Your task to perform on an android device: Search for pizza restaurants on Maps Image 0: 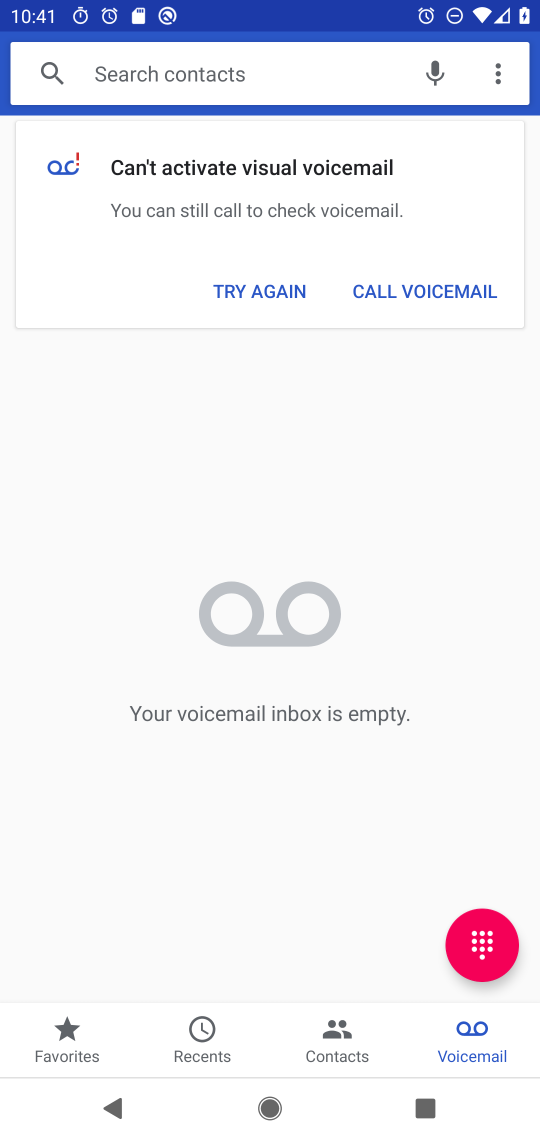
Step 0: press home button
Your task to perform on an android device: Search for pizza restaurants on Maps Image 1: 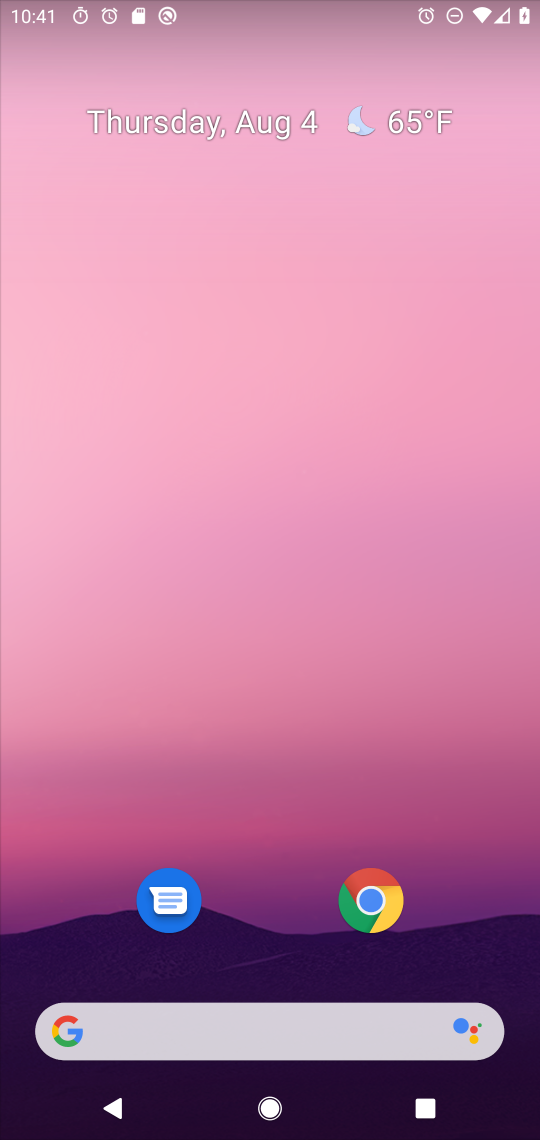
Step 1: drag from (244, 1026) to (234, 168)
Your task to perform on an android device: Search for pizza restaurants on Maps Image 2: 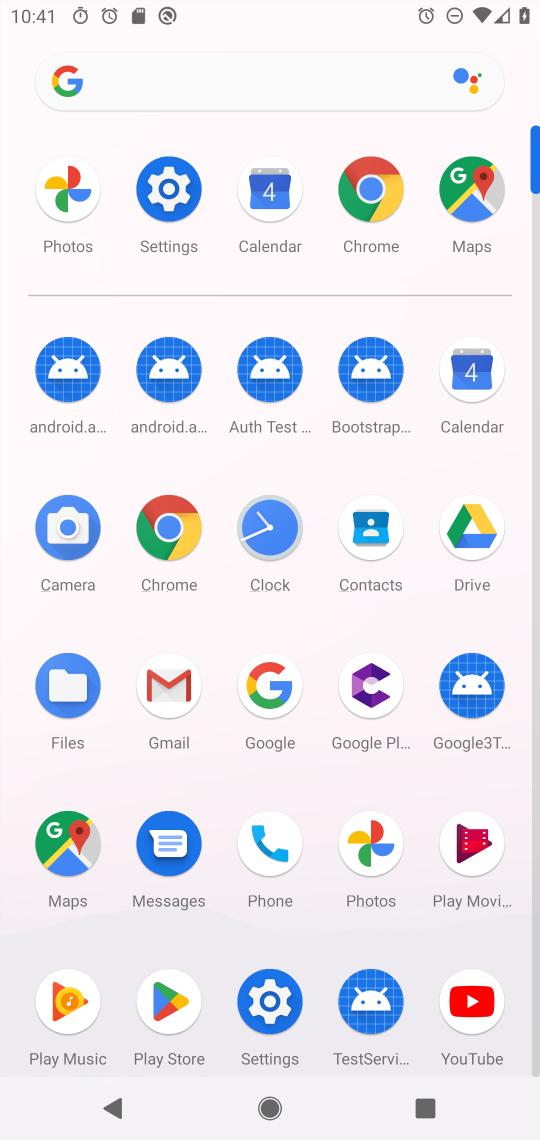
Step 2: click (471, 199)
Your task to perform on an android device: Search for pizza restaurants on Maps Image 3: 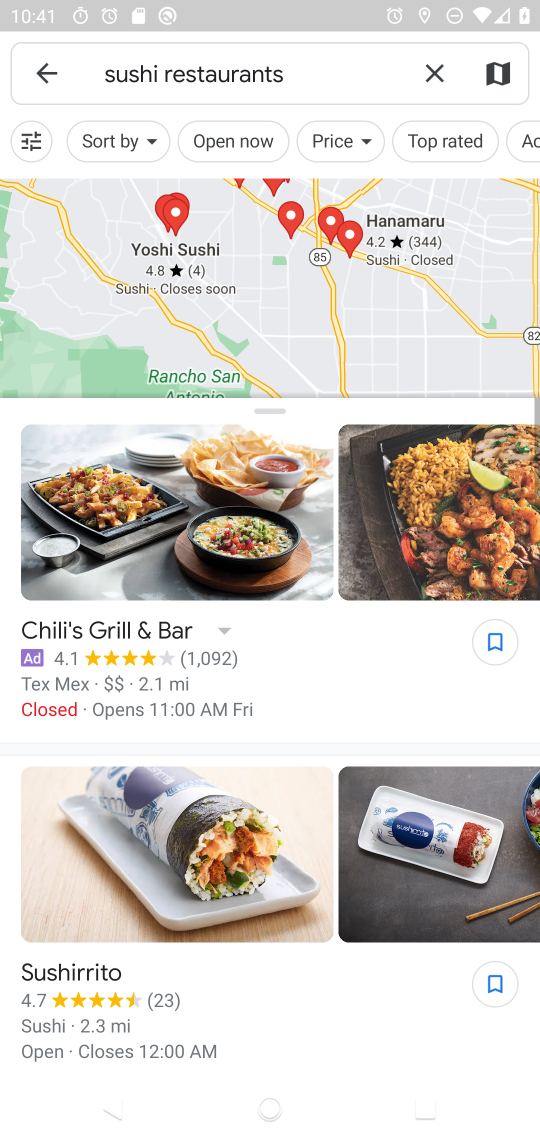
Step 3: click (434, 77)
Your task to perform on an android device: Search for pizza restaurants on Maps Image 4: 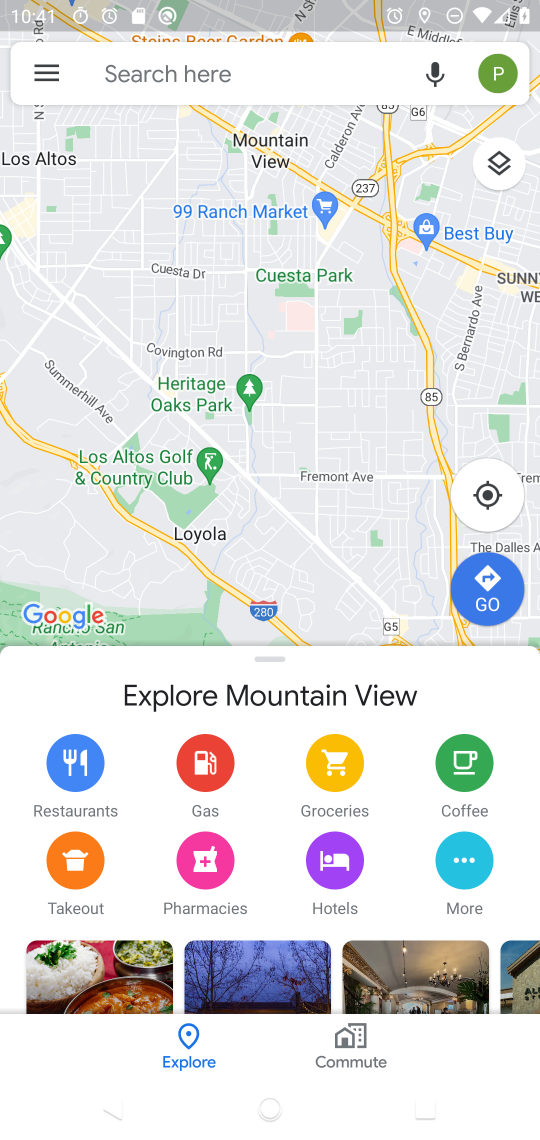
Step 4: click (248, 76)
Your task to perform on an android device: Search for pizza restaurants on Maps Image 5: 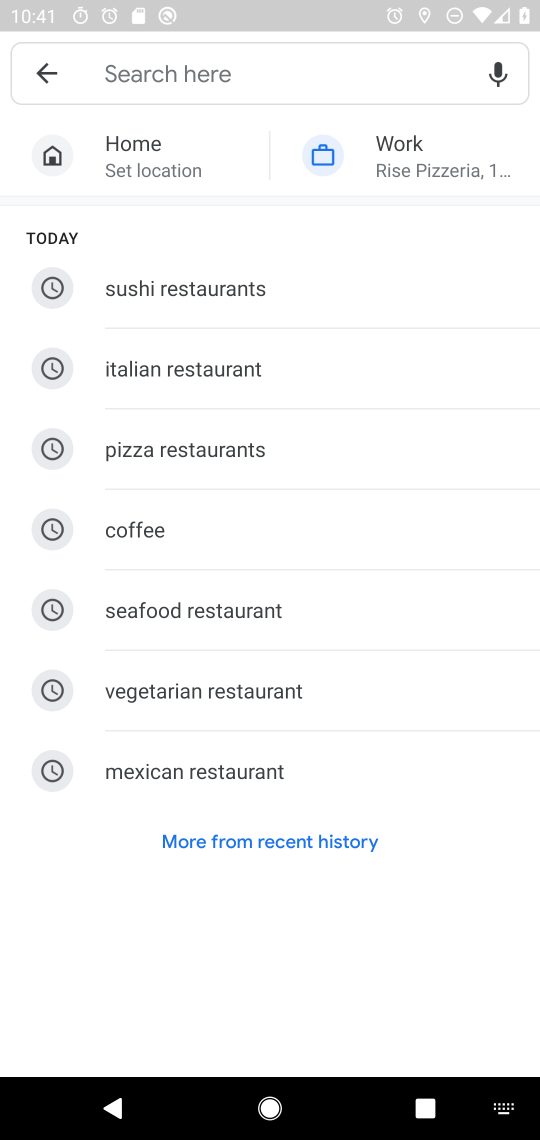
Step 5: type "pizza restaurants"
Your task to perform on an android device: Search for pizza restaurants on Maps Image 6: 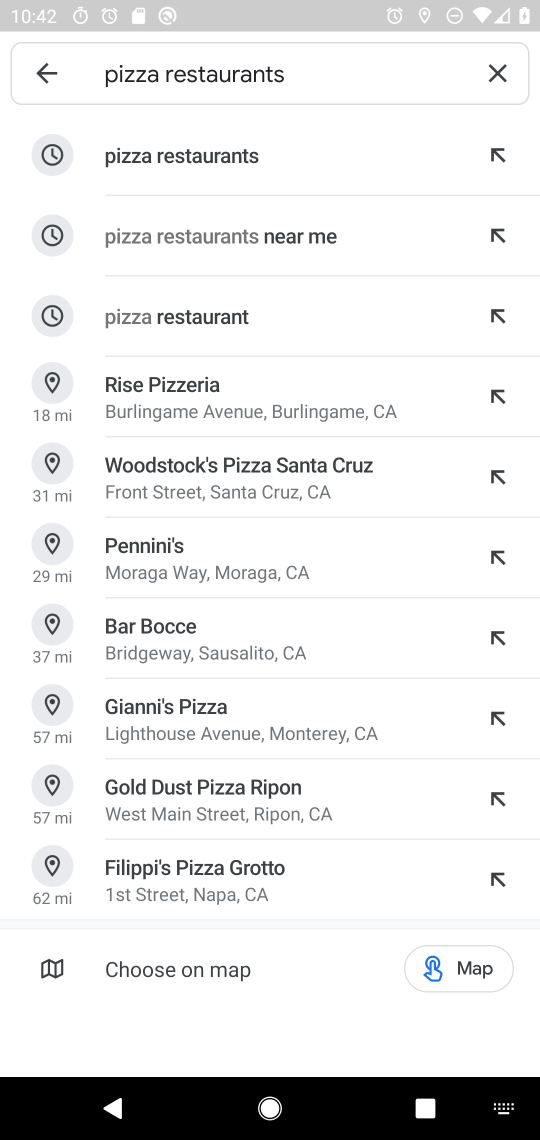
Step 6: click (235, 157)
Your task to perform on an android device: Search for pizza restaurants on Maps Image 7: 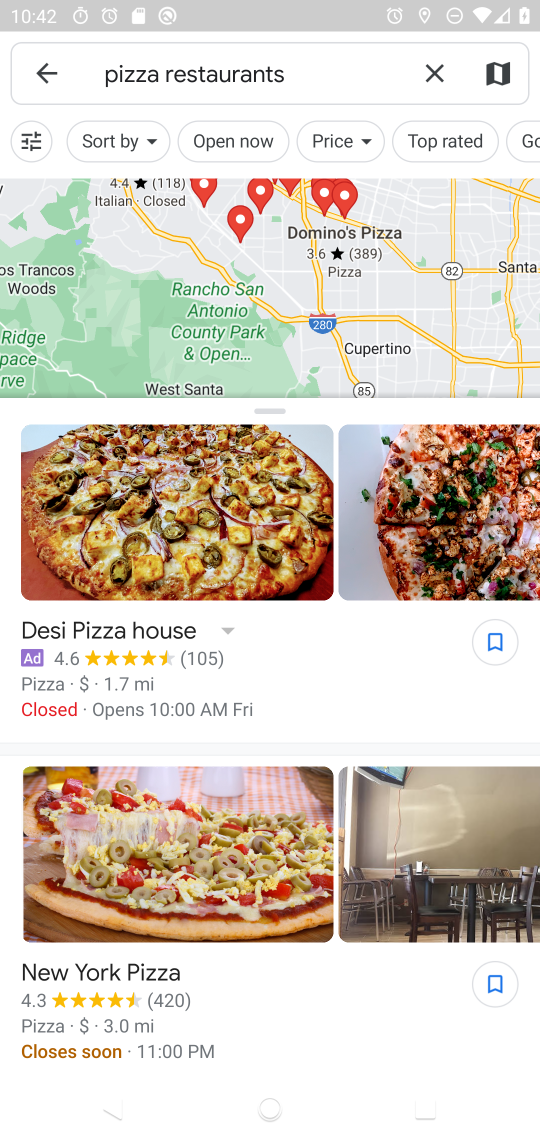
Step 7: task complete